Your task to perform on an android device: Open Amazon Image 0: 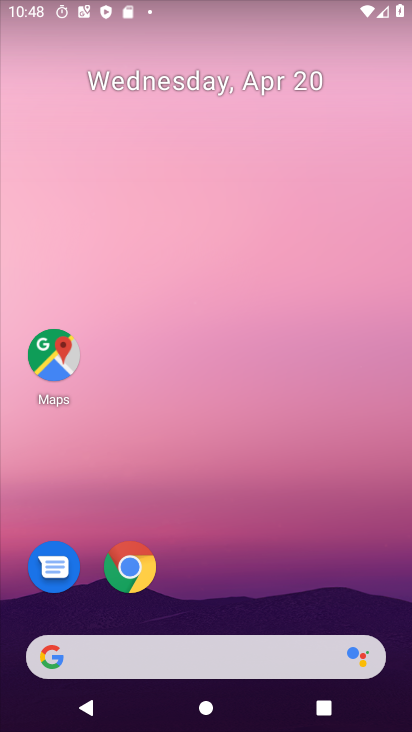
Step 0: click (146, 573)
Your task to perform on an android device: Open Amazon Image 1: 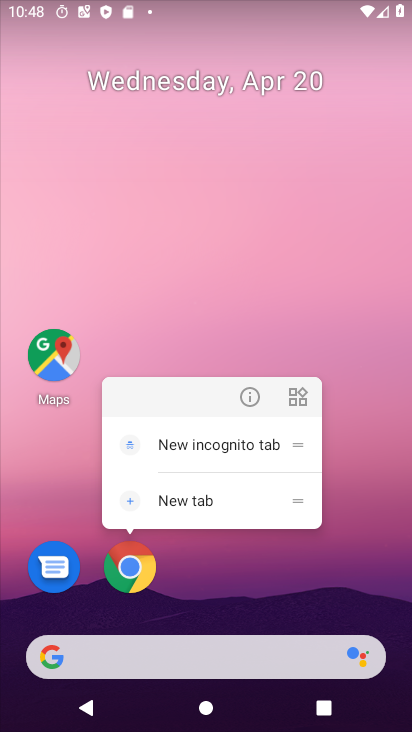
Step 1: click (243, 394)
Your task to perform on an android device: Open Amazon Image 2: 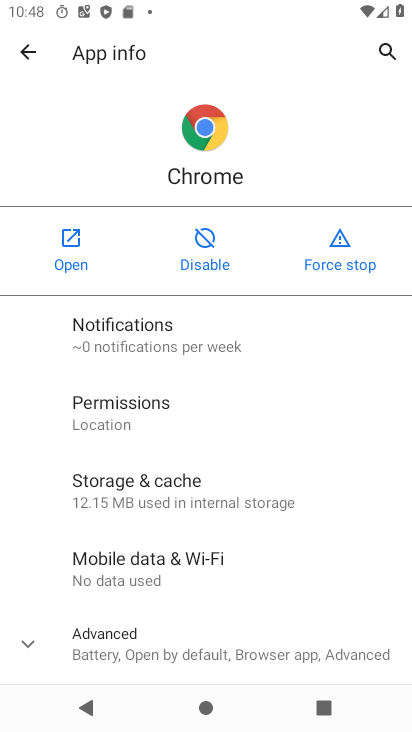
Step 2: click (87, 253)
Your task to perform on an android device: Open Amazon Image 3: 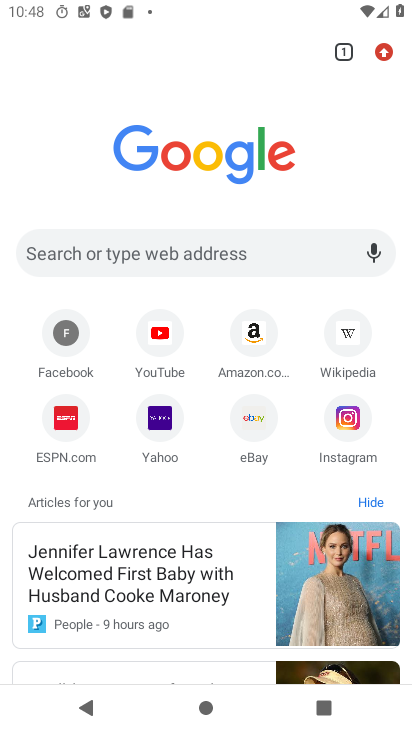
Step 3: click (246, 347)
Your task to perform on an android device: Open Amazon Image 4: 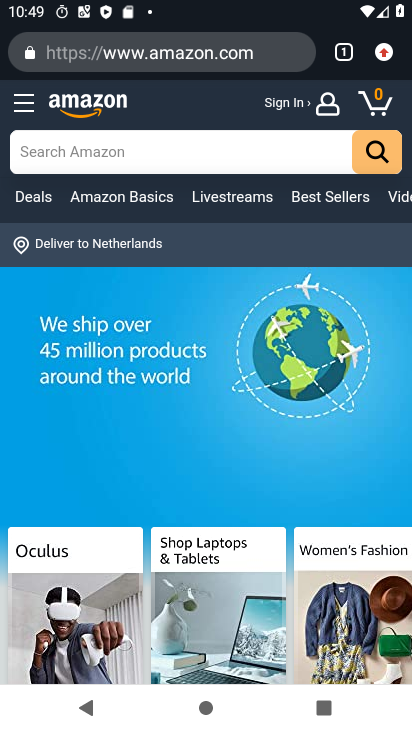
Step 4: task complete